Your task to perform on an android device: Open the web browser Image 0: 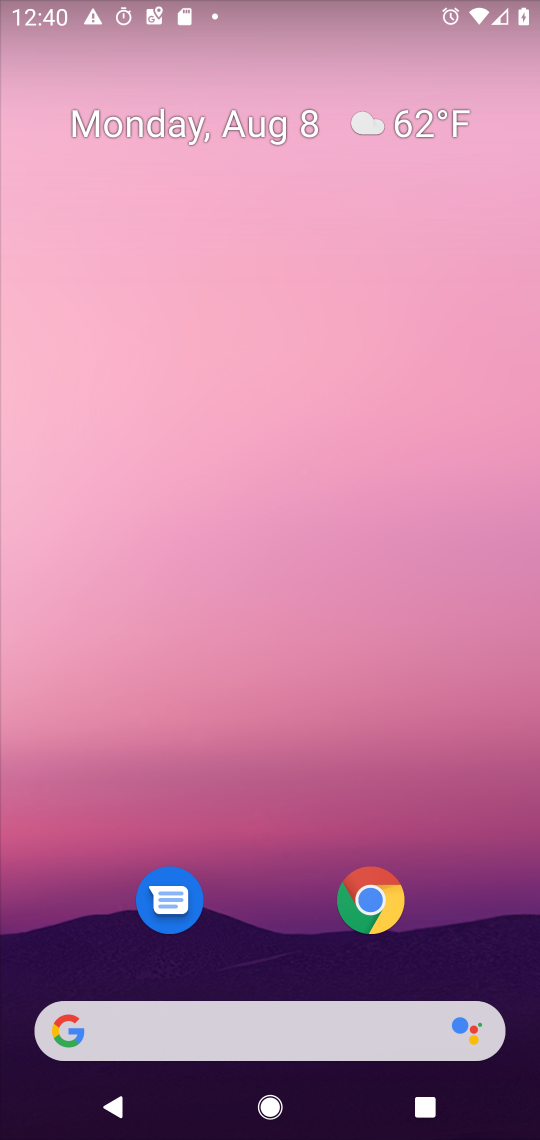
Step 0: press home button
Your task to perform on an android device: Open the web browser Image 1: 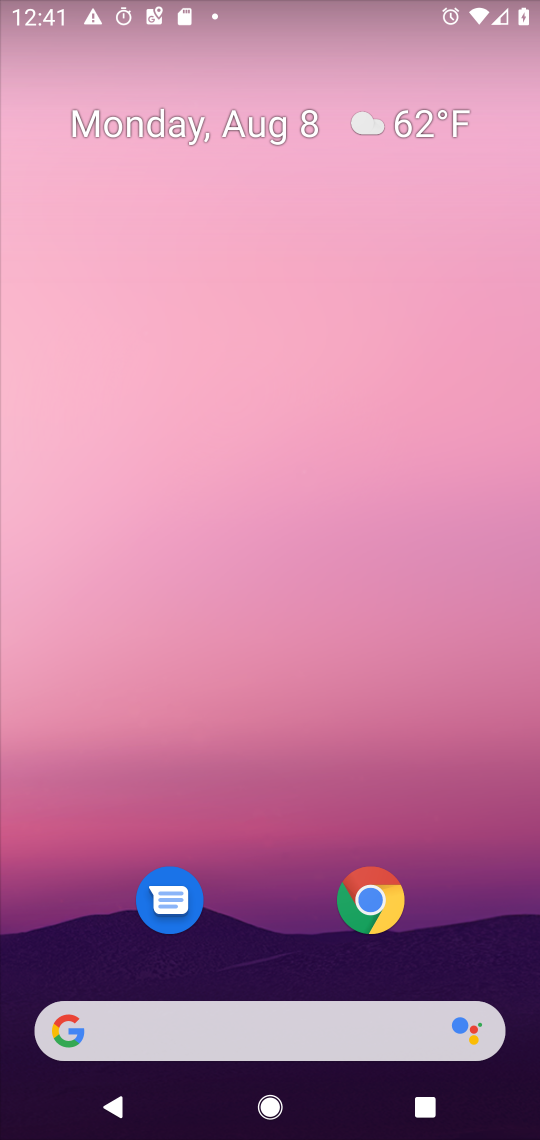
Step 1: drag from (270, 974) to (342, 152)
Your task to perform on an android device: Open the web browser Image 2: 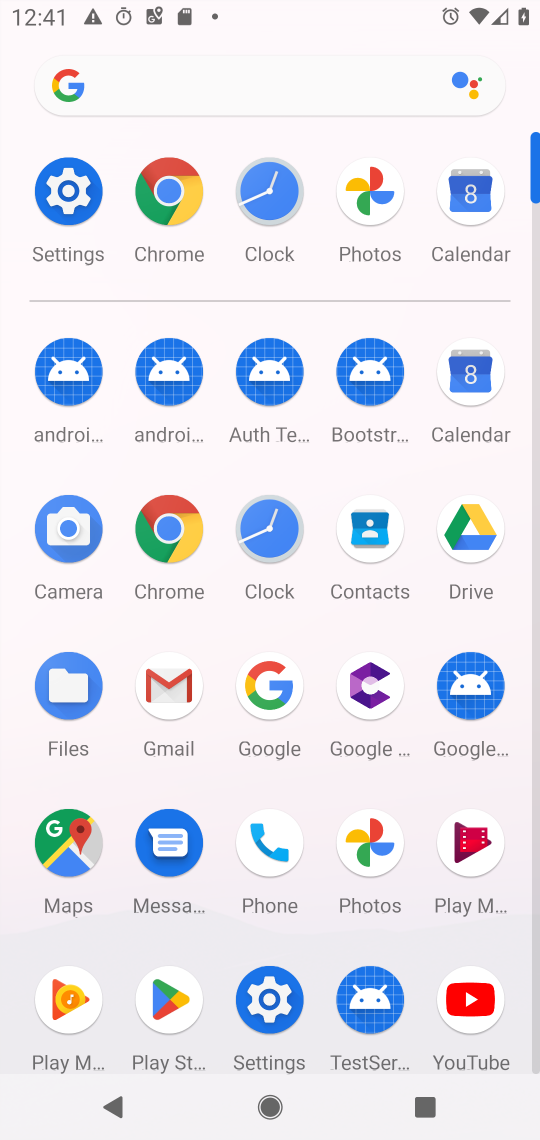
Step 2: click (165, 517)
Your task to perform on an android device: Open the web browser Image 3: 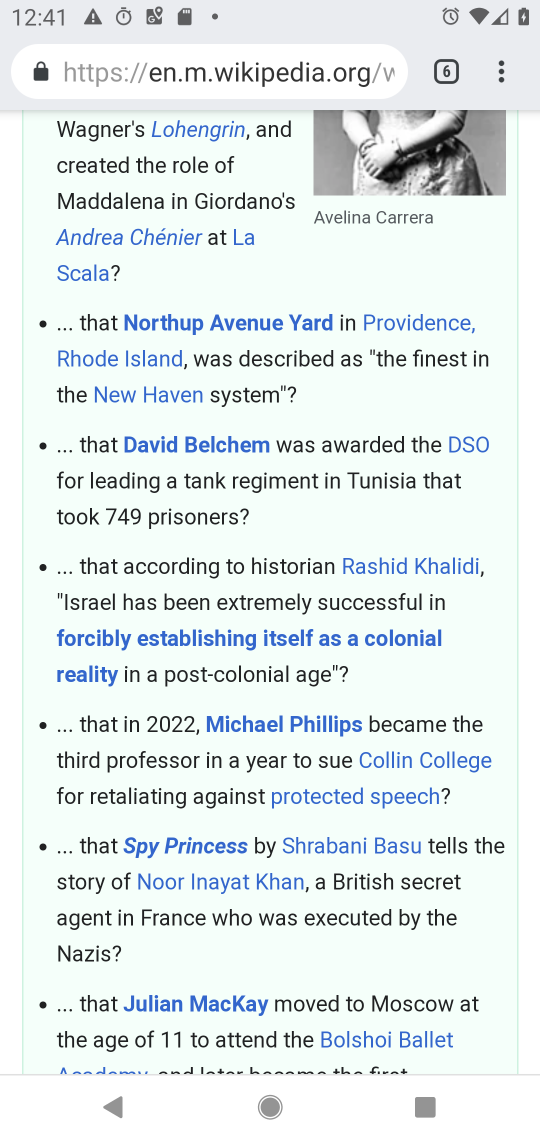
Step 3: task complete